Your task to perform on an android device: turn on notifications settings in the gmail app Image 0: 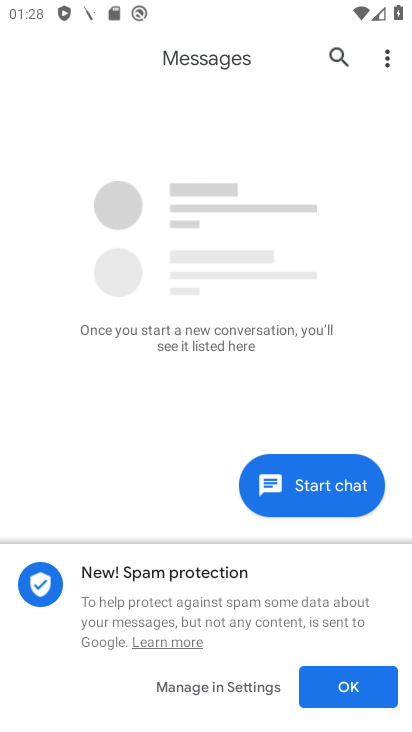
Step 0: press home button
Your task to perform on an android device: turn on notifications settings in the gmail app Image 1: 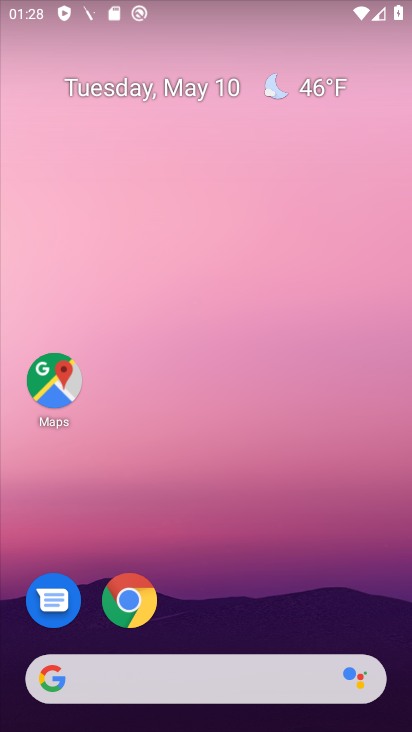
Step 1: drag from (229, 641) to (209, 10)
Your task to perform on an android device: turn on notifications settings in the gmail app Image 2: 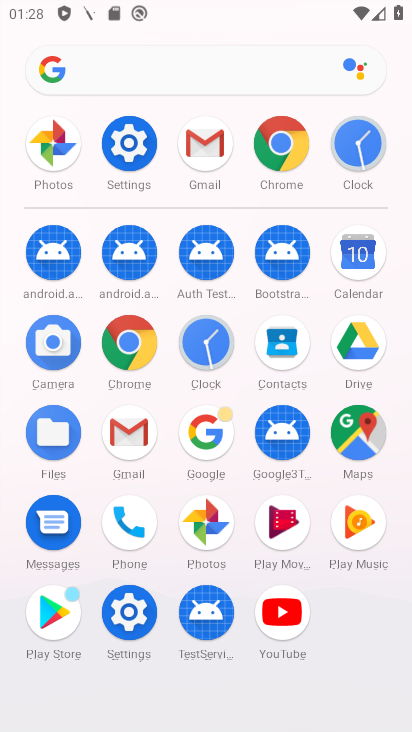
Step 2: click (129, 432)
Your task to perform on an android device: turn on notifications settings in the gmail app Image 3: 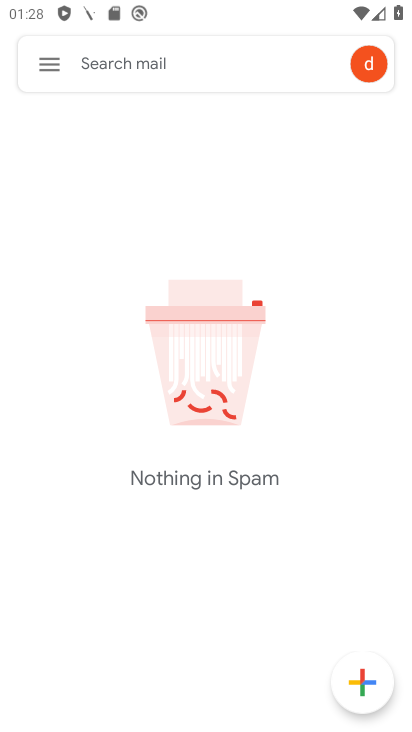
Step 3: click (33, 61)
Your task to perform on an android device: turn on notifications settings in the gmail app Image 4: 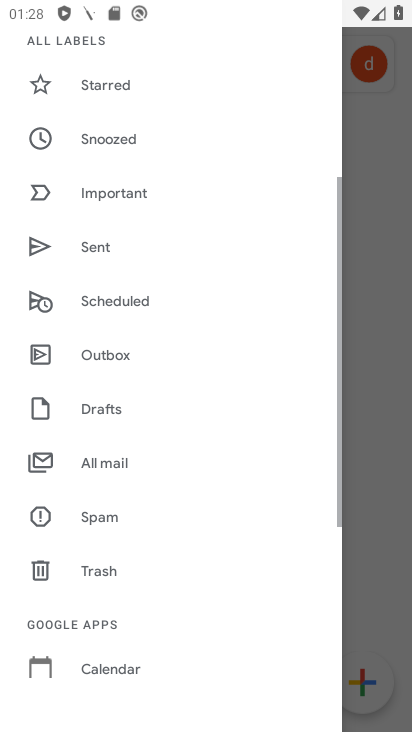
Step 4: drag from (118, 615) to (107, 199)
Your task to perform on an android device: turn on notifications settings in the gmail app Image 5: 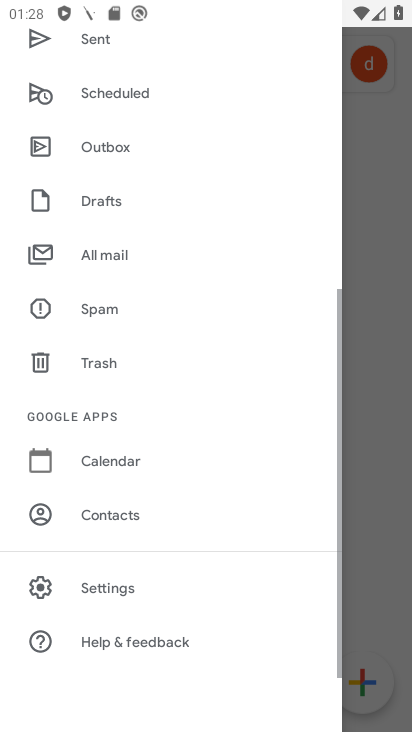
Step 5: click (100, 600)
Your task to perform on an android device: turn on notifications settings in the gmail app Image 6: 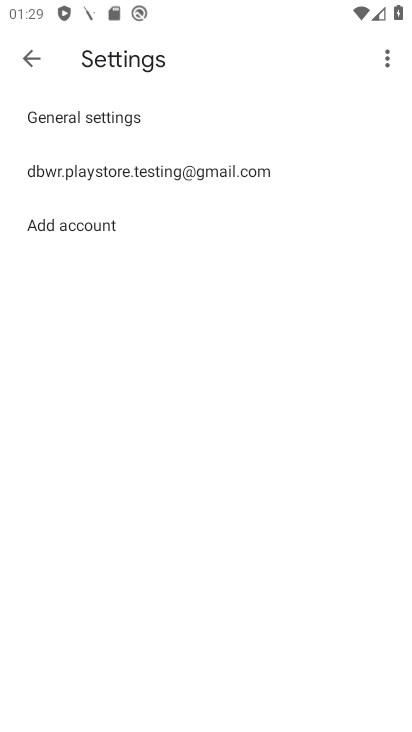
Step 6: click (95, 123)
Your task to perform on an android device: turn on notifications settings in the gmail app Image 7: 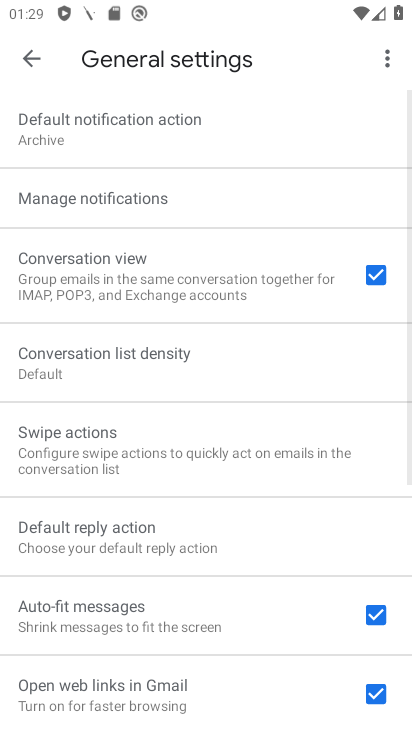
Step 7: click (121, 184)
Your task to perform on an android device: turn on notifications settings in the gmail app Image 8: 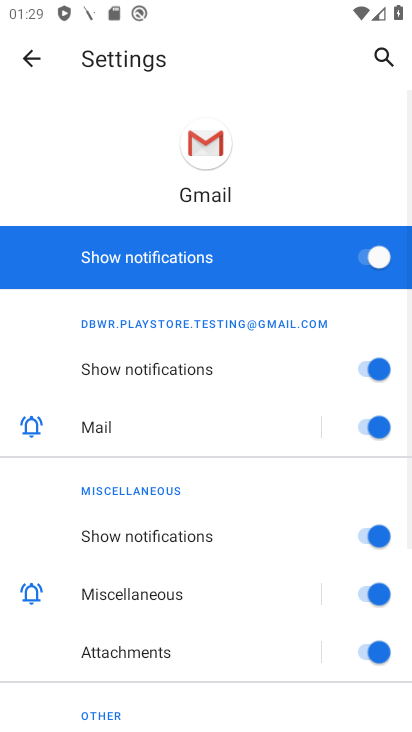
Step 8: task complete